Your task to perform on an android device: make emails show in primary in the gmail app Image 0: 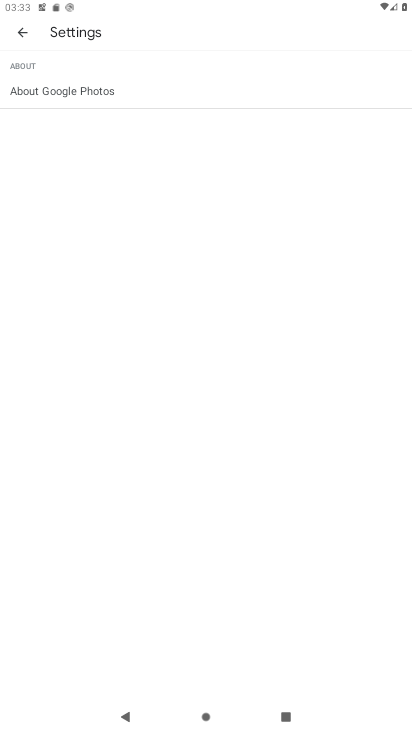
Step 0: press home button
Your task to perform on an android device: make emails show in primary in the gmail app Image 1: 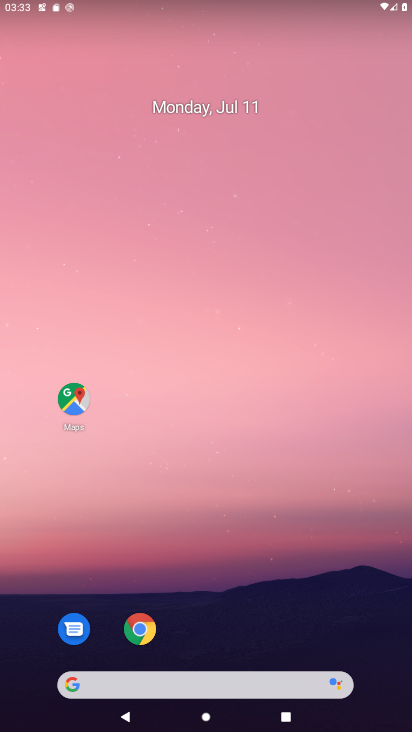
Step 1: drag from (221, 645) to (327, 29)
Your task to perform on an android device: make emails show in primary in the gmail app Image 2: 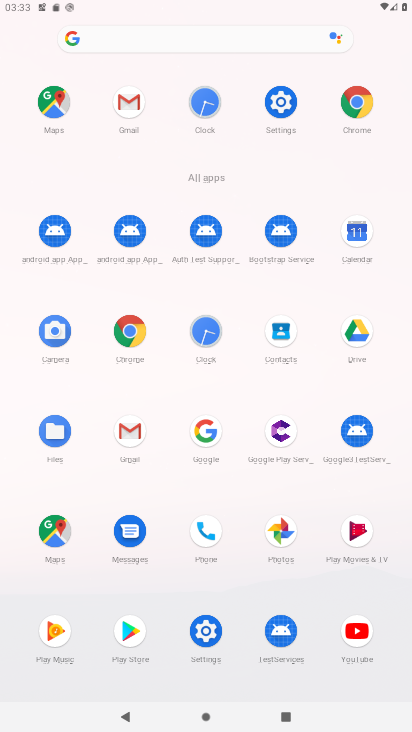
Step 2: click (123, 95)
Your task to perform on an android device: make emails show in primary in the gmail app Image 3: 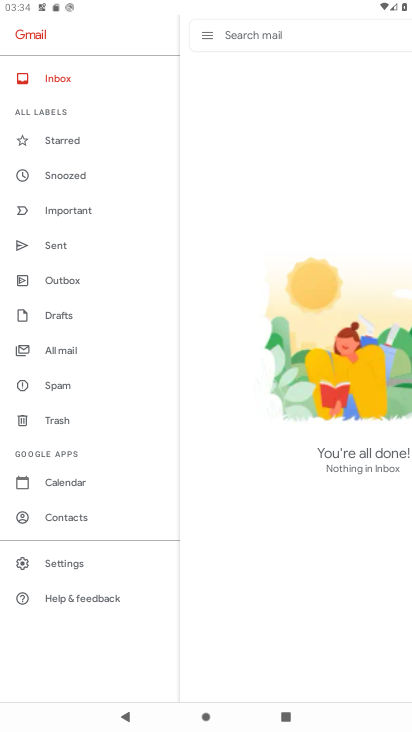
Step 3: click (78, 564)
Your task to perform on an android device: make emails show in primary in the gmail app Image 4: 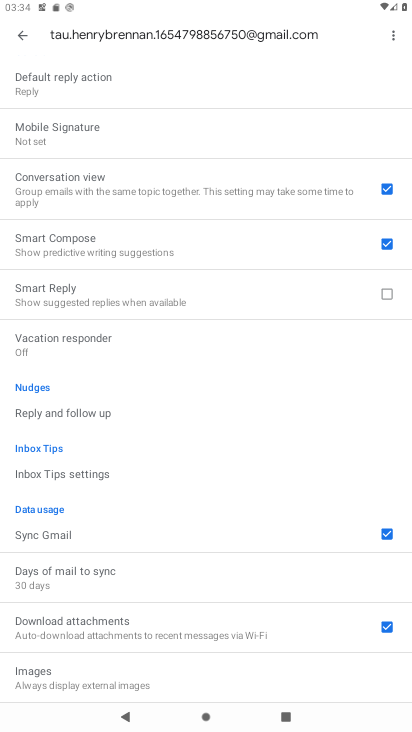
Step 4: drag from (142, 152) to (158, 657)
Your task to perform on an android device: make emails show in primary in the gmail app Image 5: 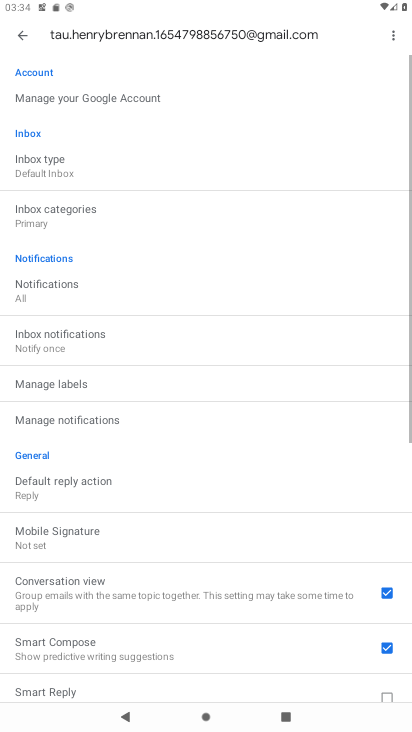
Step 5: drag from (53, 161) to (97, 631)
Your task to perform on an android device: make emails show in primary in the gmail app Image 6: 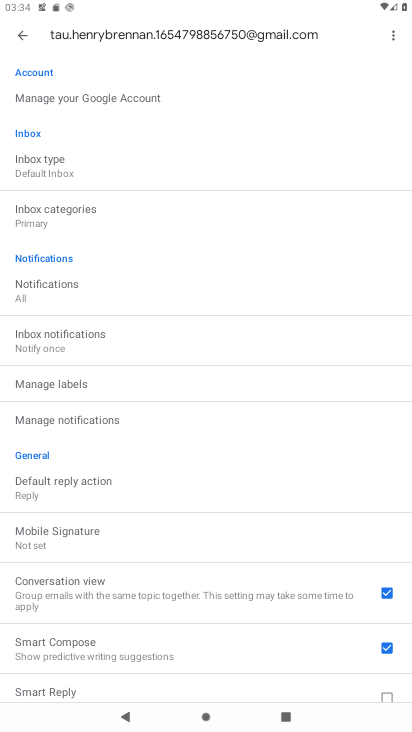
Step 6: click (48, 222)
Your task to perform on an android device: make emails show in primary in the gmail app Image 7: 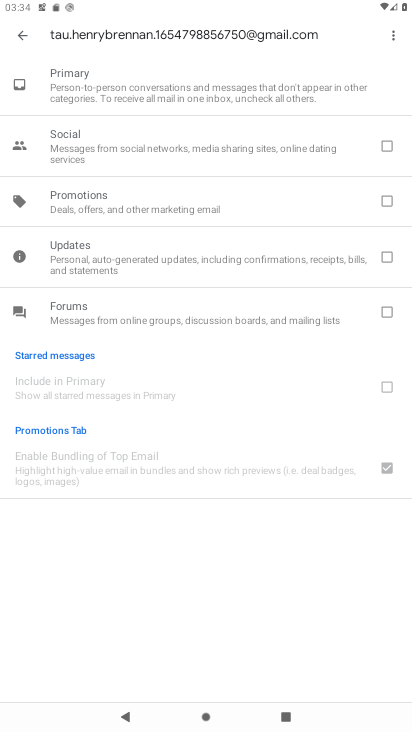
Step 7: click (189, 94)
Your task to perform on an android device: make emails show in primary in the gmail app Image 8: 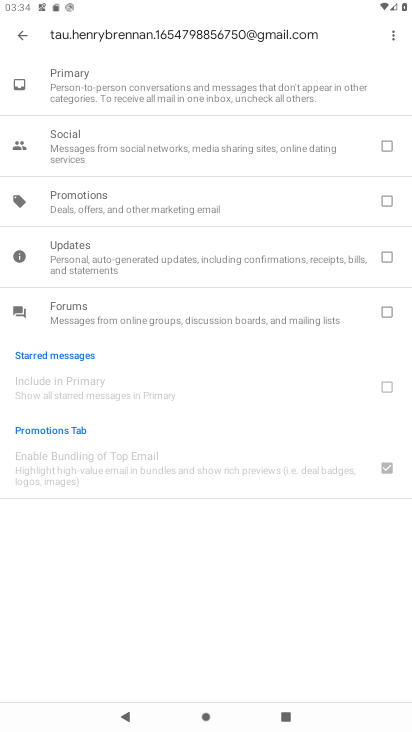
Step 8: click (100, 96)
Your task to perform on an android device: make emails show in primary in the gmail app Image 9: 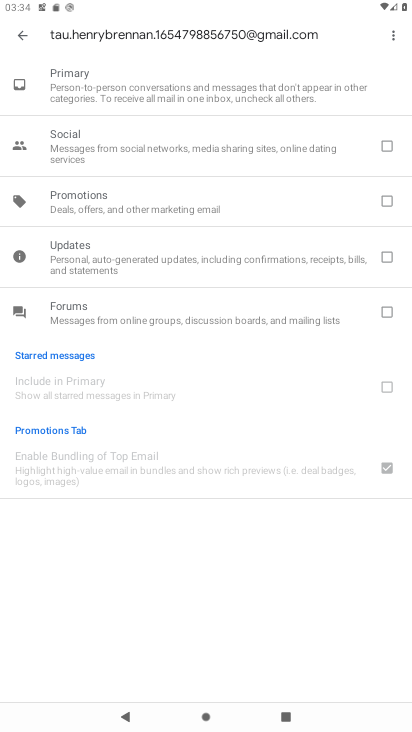
Step 9: click (380, 387)
Your task to perform on an android device: make emails show in primary in the gmail app Image 10: 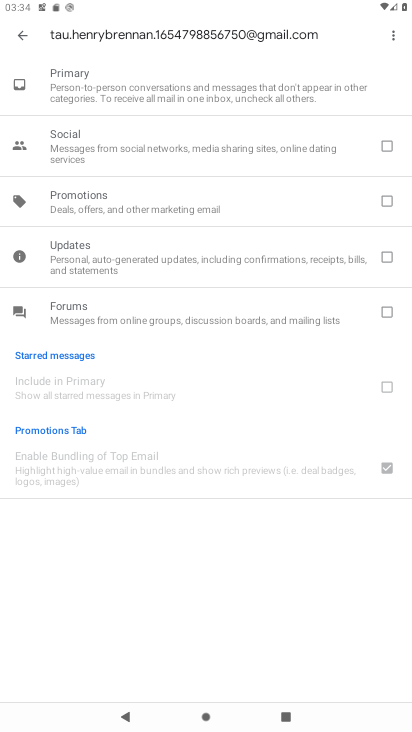
Step 10: click (385, 147)
Your task to perform on an android device: make emails show in primary in the gmail app Image 11: 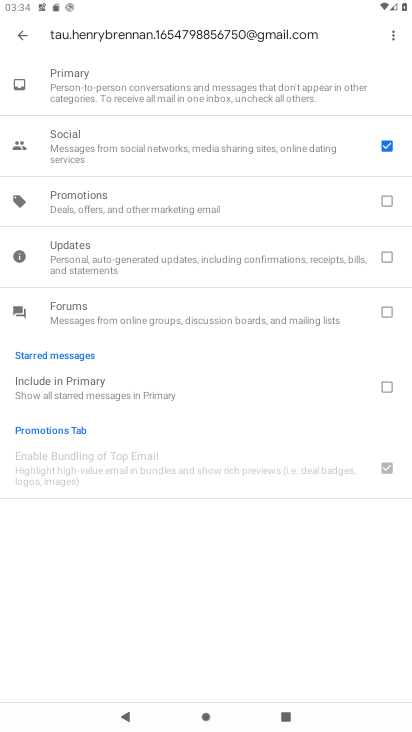
Step 11: click (389, 198)
Your task to perform on an android device: make emails show in primary in the gmail app Image 12: 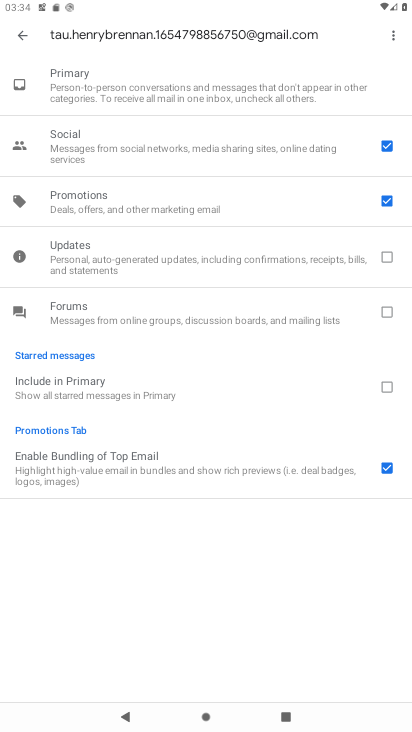
Step 12: click (384, 254)
Your task to perform on an android device: make emails show in primary in the gmail app Image 13: 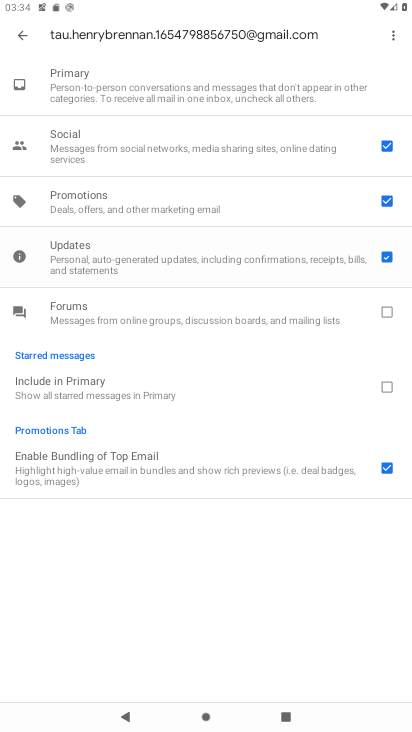
Step 13: click (387, 383)
Your task to perform on an android device: make emails show in primary in the gmail app Image 14: 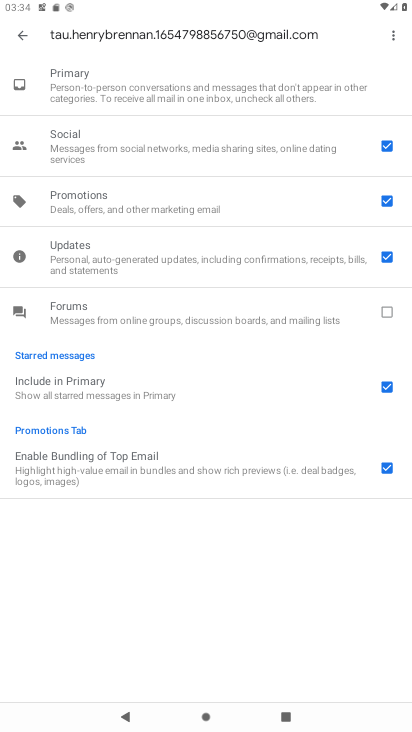
Step 14: click (390, 313)
Your task to perform on an android device: make emails show in primary in the gmail app Image 15: 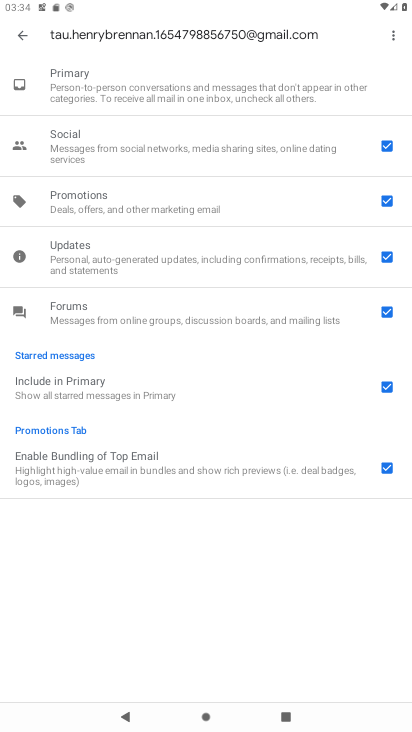
Step 15: task complete